Your task to perform on an android device: Open Youtube and go to the subscriptions tab Image 0: 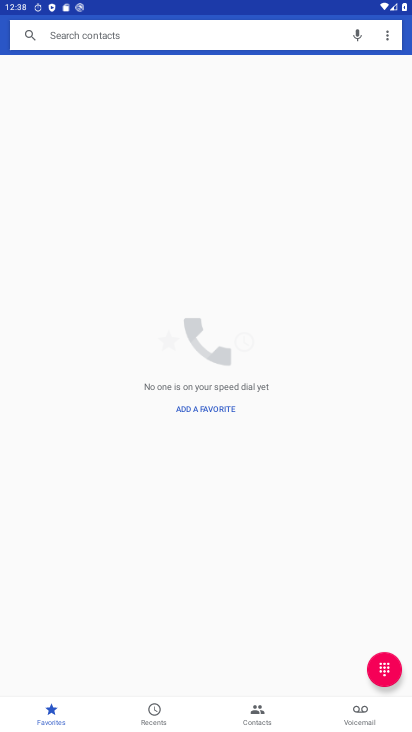
Step 0: press home button
Your task to perform on an android device: Open Youtube and go to the subscriptions tab Image 1: 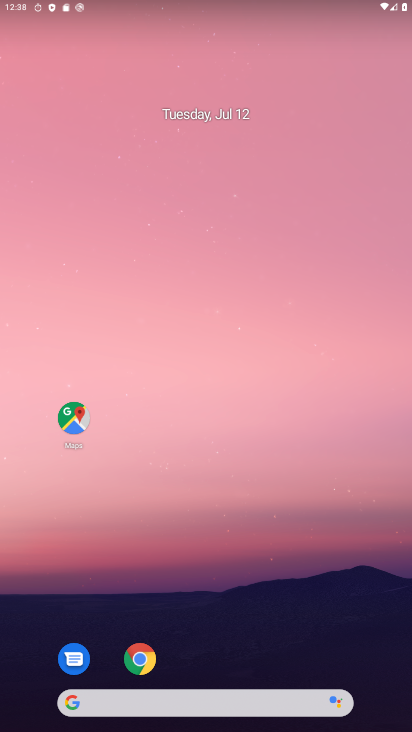
Step 1: drag from (231, 586) to (212, 326)
Your task to perform on an android device: Open Youtube and go to the subscriptions tab Image 2: 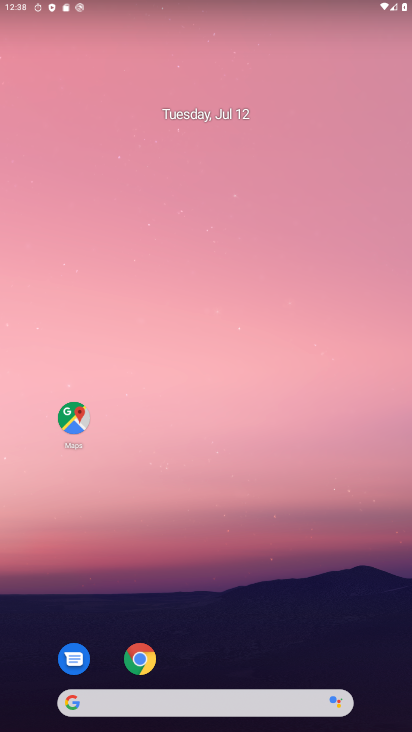
Step 2: drag from (242, 639) to (222, 189)
Your task to perform on an android device: Open Youtube and go to the subscriptions tab Image 3: 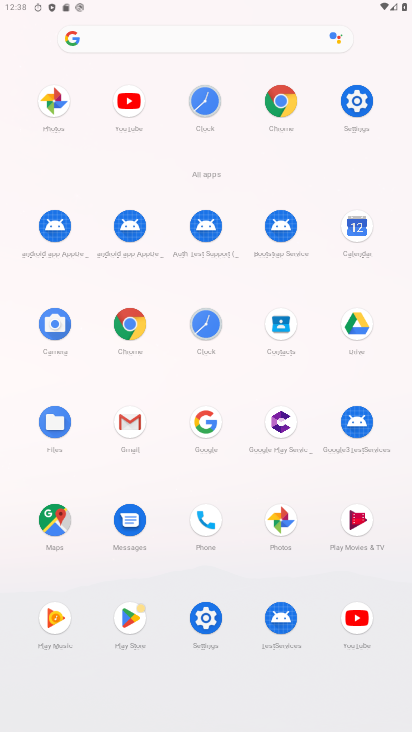
Step 3: click (133, 106)
Your task to perform on an android device: Open Youtube and go to the subscriptions tab Image 4: 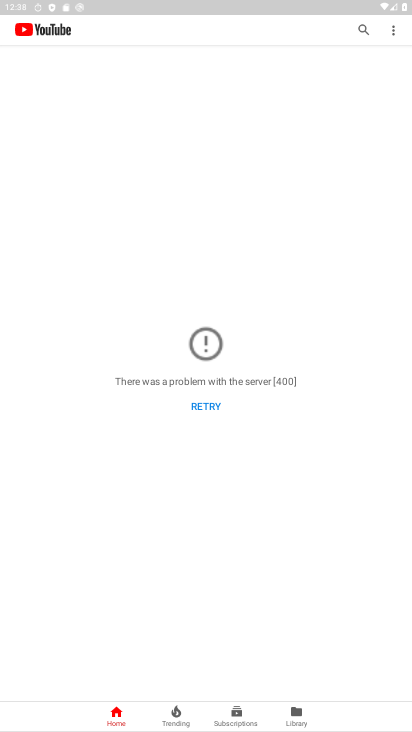
Step 4: click (219, 405)
Your task to perform on an android device: Open Youtube and go to the subscriptions tab Image 5: 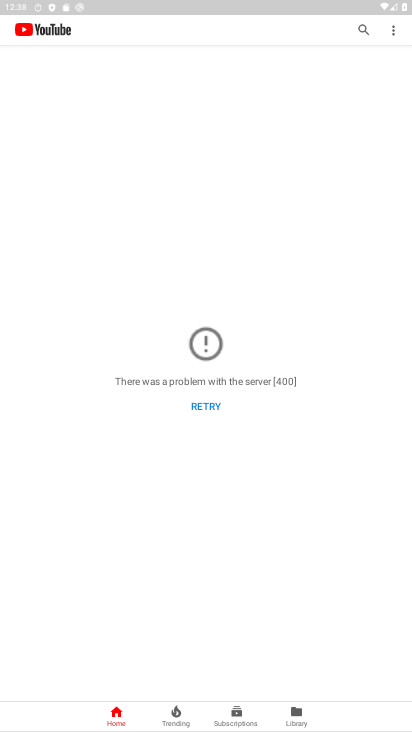
Step 5: task complete